Your task to perform on an android device: Open Google Maps Image 0: 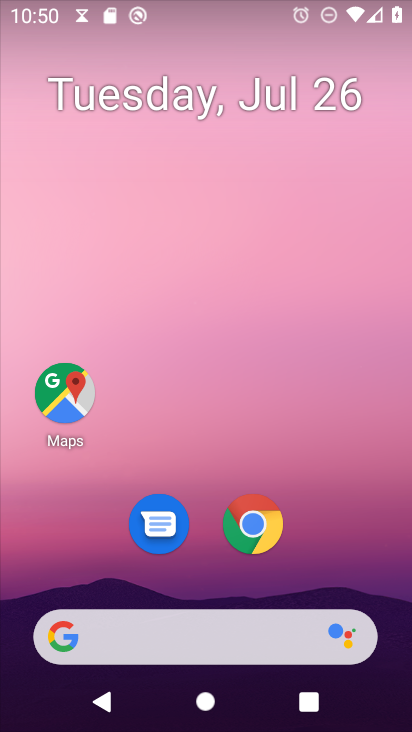
Step 0: press home button
Your task to perform on an android device: Open Google Maps Image 1: 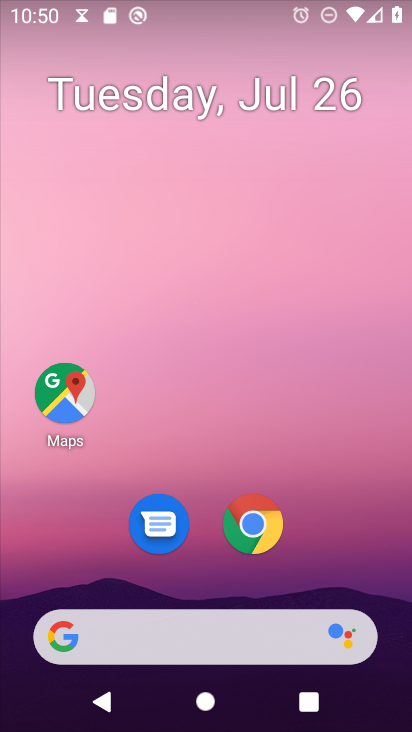
Step 1: click (70, 397)
Your task to perform on an android device: Open Google Maps Image 2: 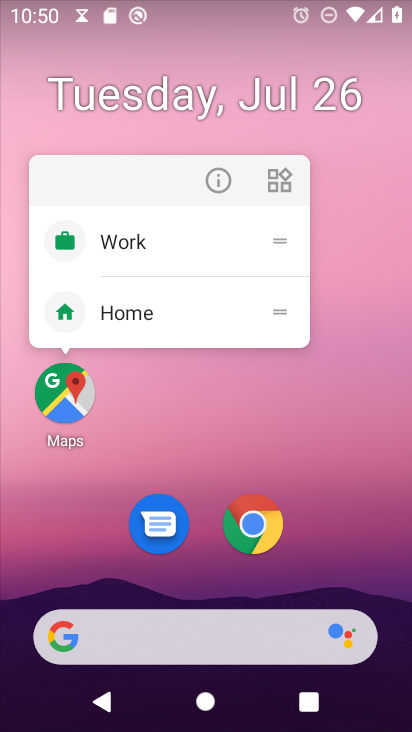
Step 2: click (66, 402)
Your task to perform on an android device: Open Google Maps Image 3: 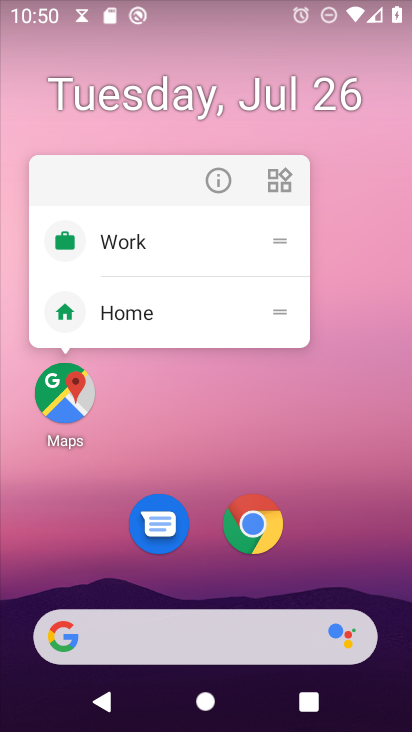
Step 3: click (66, 402)
Your task to perform on an android device: Open Google Maps Image 4: 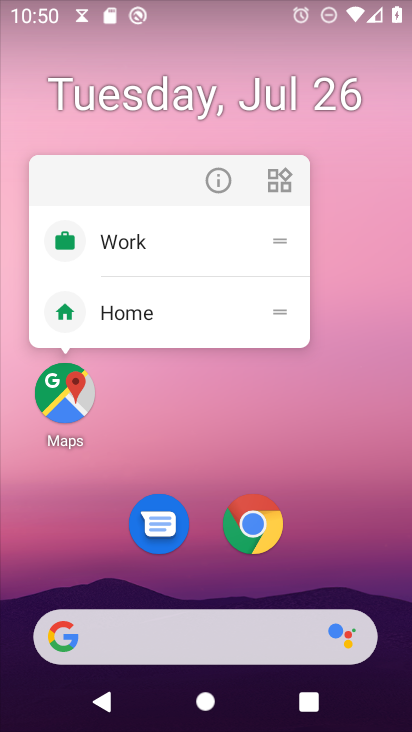
Step 4: click (66, 403)
Your task to perform on an android device: Open Google Maps Image 5: 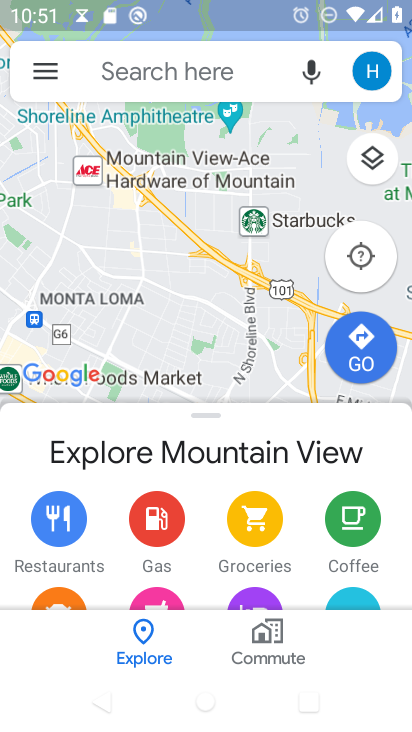
Step 5: task complete